Your task to perform on an android device: turn off location history Image 0: 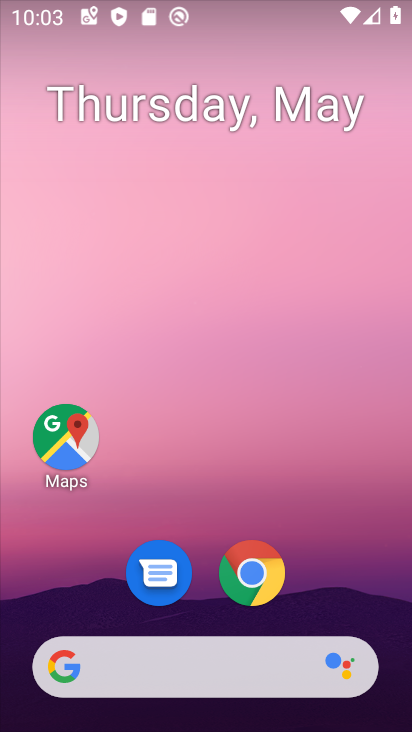
Step 0: drag from (209, 602) to (221, 149)
Your task to perform on an android device: turn off location history Image 1: 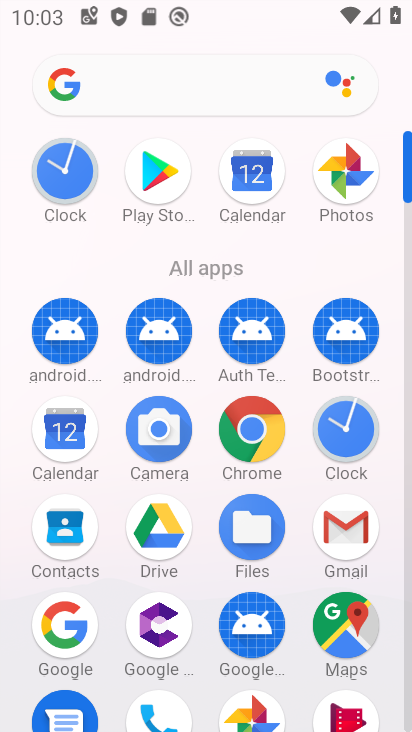
Step 1: drag from (118, 566) to (174, 238)
Your task to perform on an android device: turn off location history Image 2: 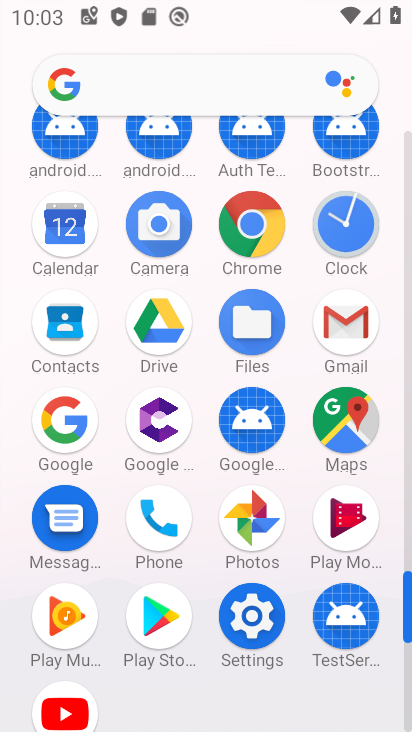
Step 2: click (243, 609)
Your task to perform on an android device: turn off location history Image 3: 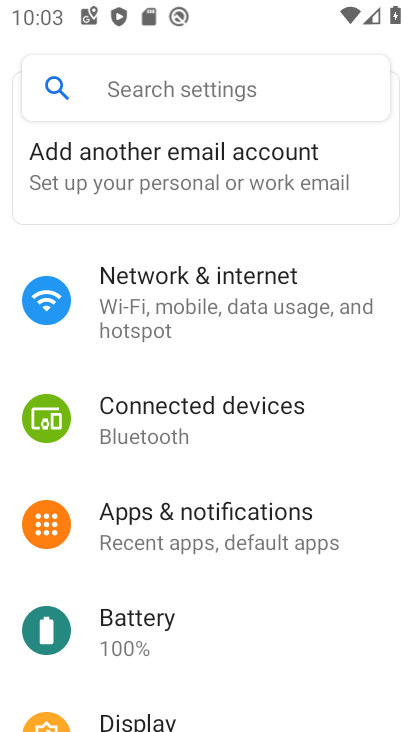
Step 3: drag from (224, 575) to (259, 281)
Your task to perform on an android device: turn off location history Image 4: 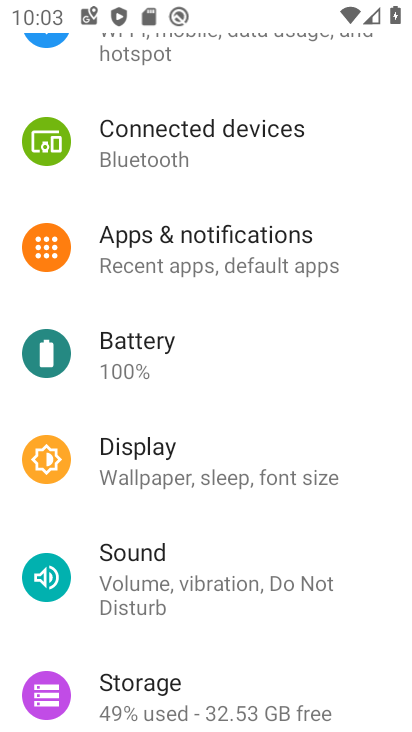
Step 4: drag from (249, 653) to (252, 382)
Your task to perform on an android device: turn off location history Image 5: 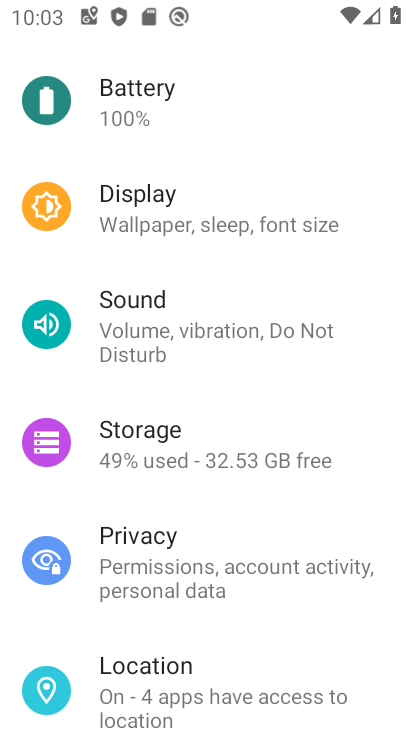
Step 5: click (191, 683)
Your task to perform on an android device: turn off location history Image 6: 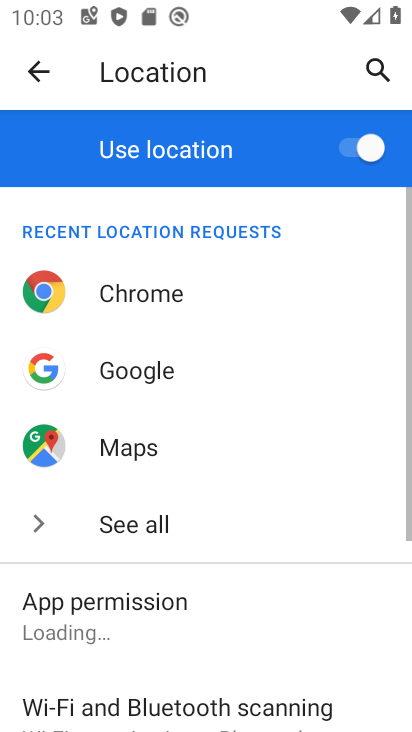
Step 6: drag from (205, 641) to (242, 322)
Your task to perform on an android device: turn off location history Image 7: 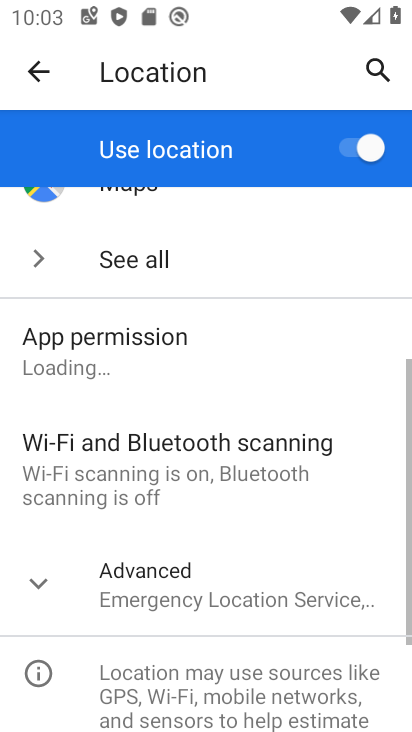
Step 7: click (208, 620)
Your task to perform on an android device: turn off location history Image 8: 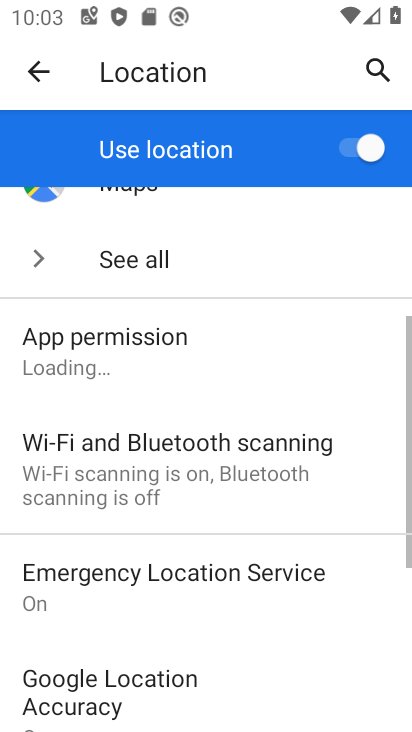
Step 8: drag from (208, 620) to (296, 300)
Your task to perform on an android device: turn off location history Image 9: 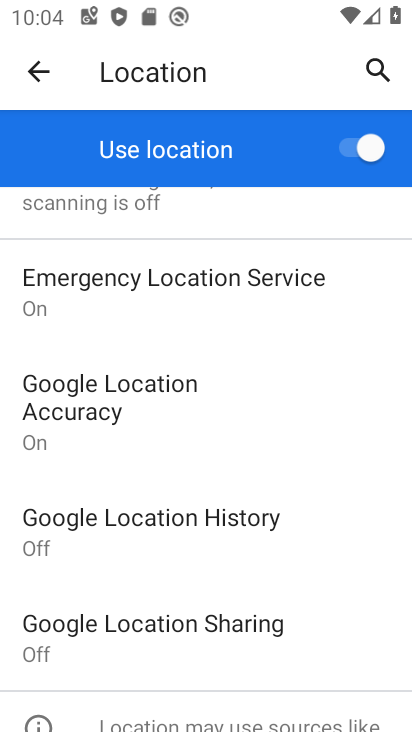
Step 9: drag from (197, 619) to (207, 377)
Your task to perform on an android device: turn off location history Image 10: 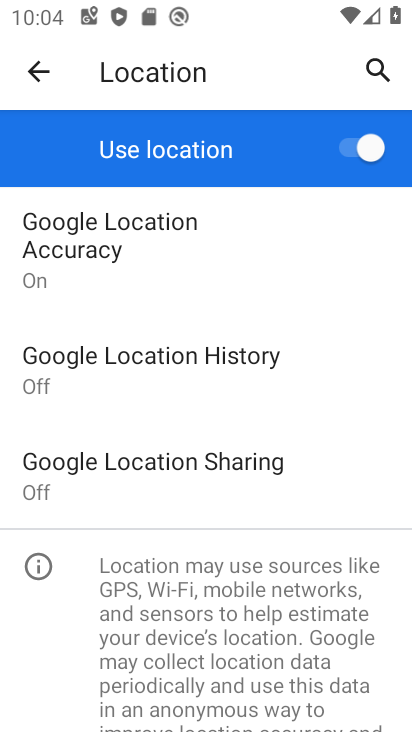
Step 10: click (182, 351)
Your task to perform on an android device: turn off location history Image 11: 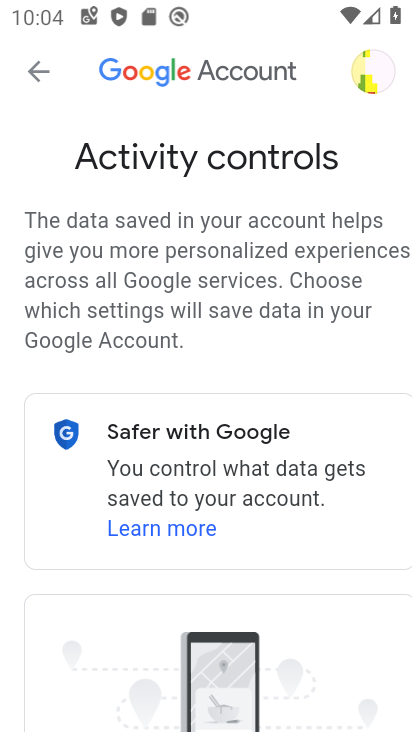
Step 11: task complete